Your task to perform on an android device: turn on wifi Image 0: 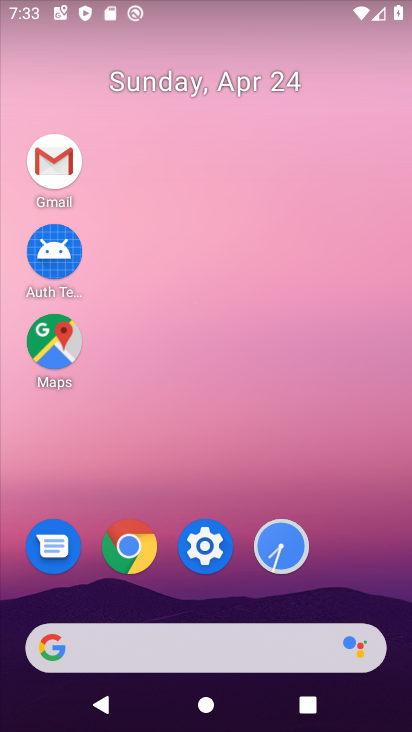
Step 0: click (206, 550)
Your task to perform on an android device: turn on wifi Image 1: 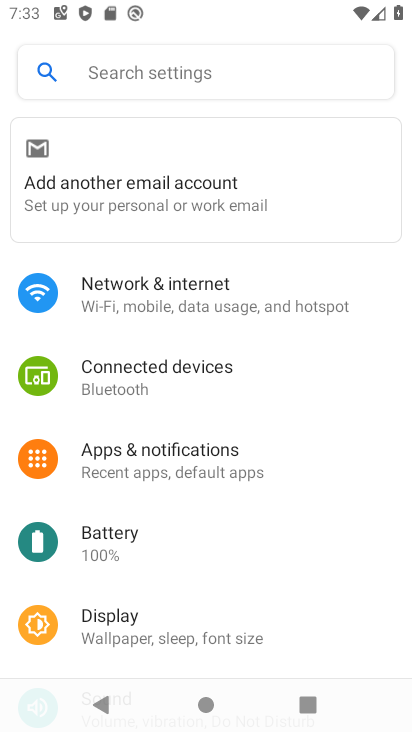
Step 1: click (154, 280)
Your task to perform on an android device: turn on wifi Image 2: 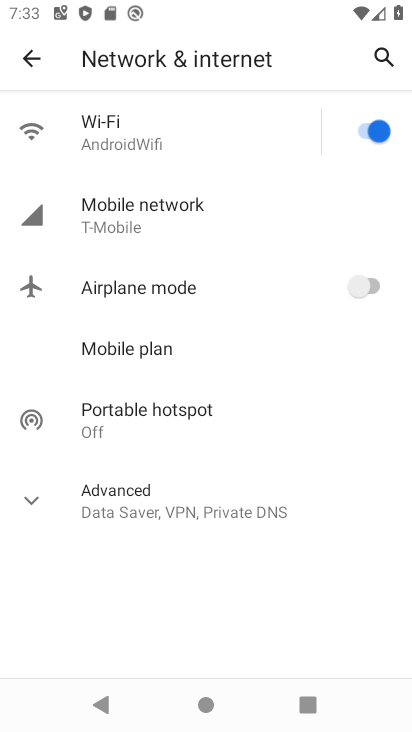
Step 2: task complete